Your task to perform on an android device: turn off javascript in the chrome app Image 0: 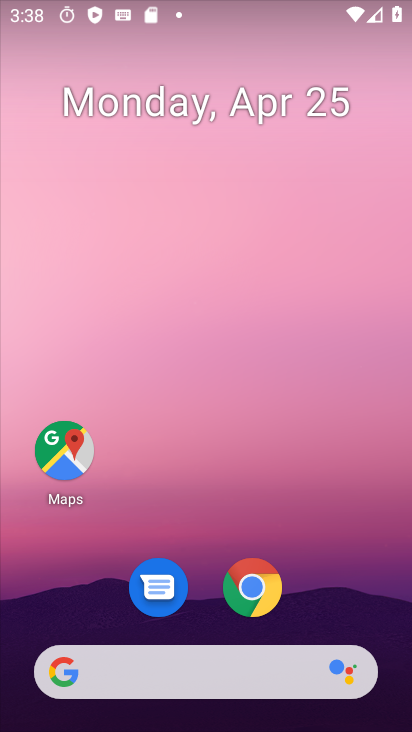
Step 0: drag from (334, 494) to (287, 40)
Your task to perform on an android device: turn off javascript in the chrome app Image 1: 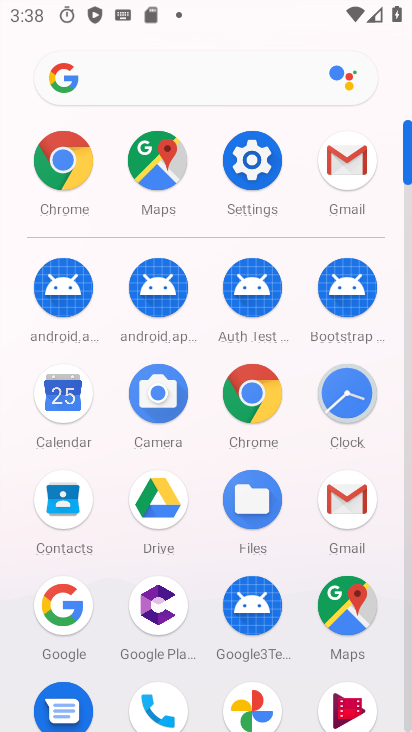
Step 1: click (262, 397)
Your task to perform on an android device: turn off javascript in the chrome app Image 2: 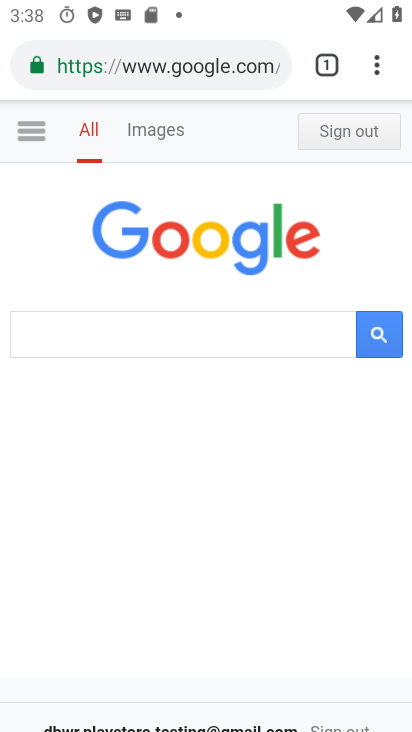
Step 2: drag from (378, 66) to (173, 641)
Your task to perform on an android device: turn off javascript in the chrome app Image 3: 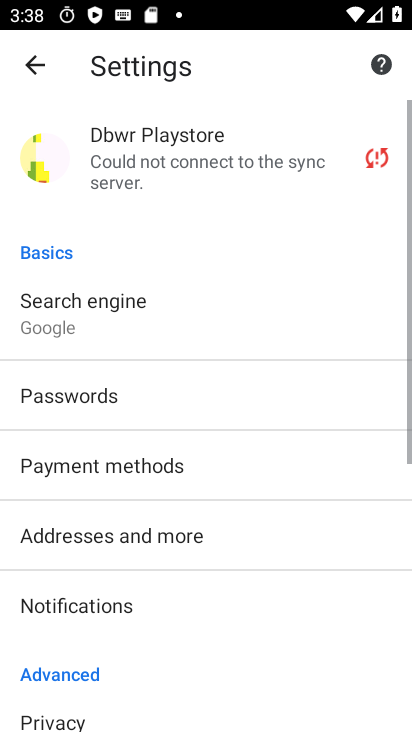
Step 3: drag from (198, 593) to (273, 49)
Your task to perform on an android device: turn off javascript in the chrome app Image 4: 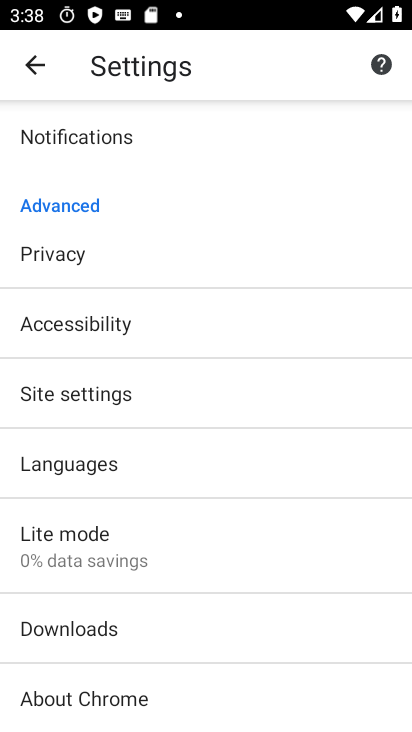
Step 4: drag from (244, 221) to (285, 118)
Your task to perform on an android device: turn off javascript in the chrome app Image 5: 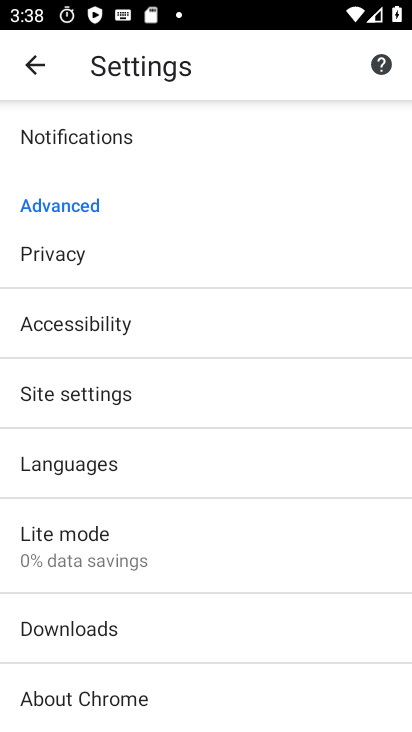
Step 5: click (126, 548)
Your task to perform on an android device: turn off javascript in the chrome app Image 6: 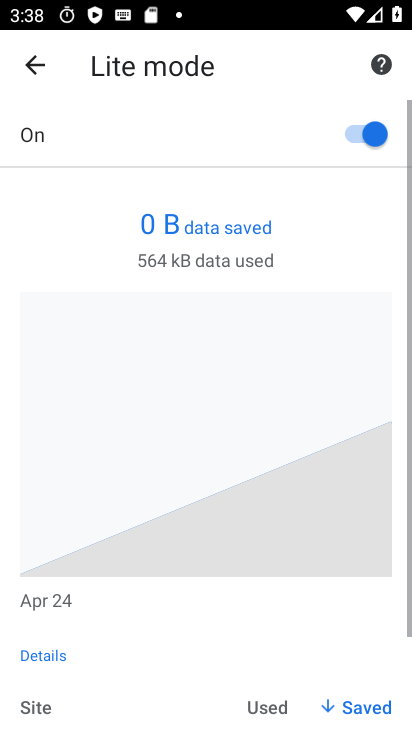
Step 6: click (36, 61)
Your task to perform on an android device: turn off javascript in the chrome app Image 7: 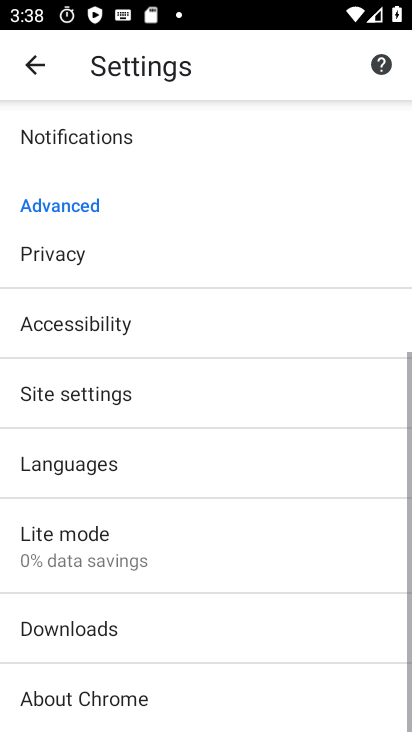
Step 7: click (154, 400)
Your task to perform on an android device: turn off javascript in the chrome app Image 8: 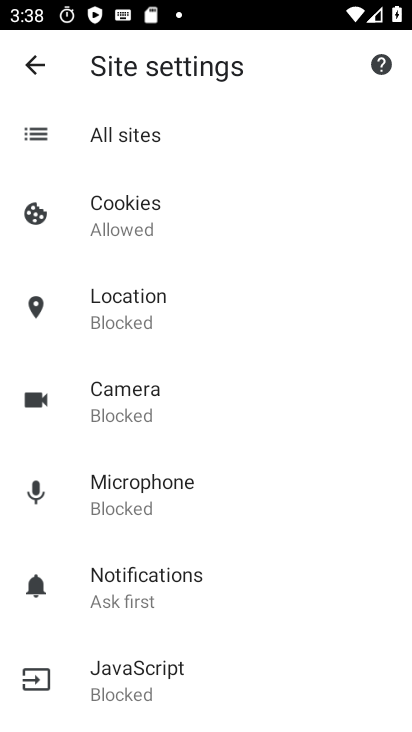
Step 8: drag from (161, 633) to (213, 253)
Your task to perform on an android device: turn off javascript in the chrome app Image 9: 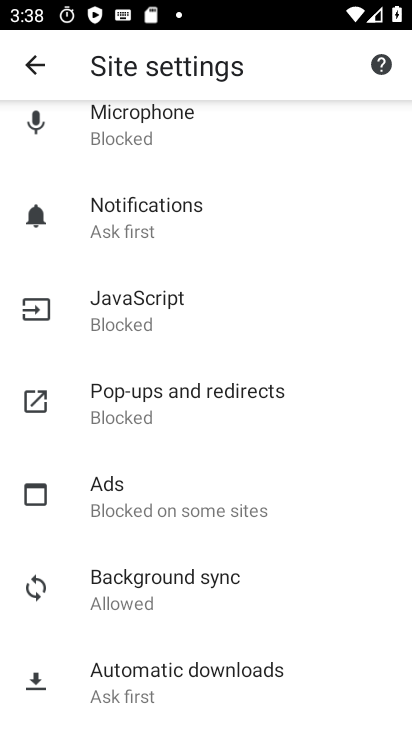
Step 9: click (156, 304)
Your task to perform on an android device: turn off javascript in the chrome app Image 10: 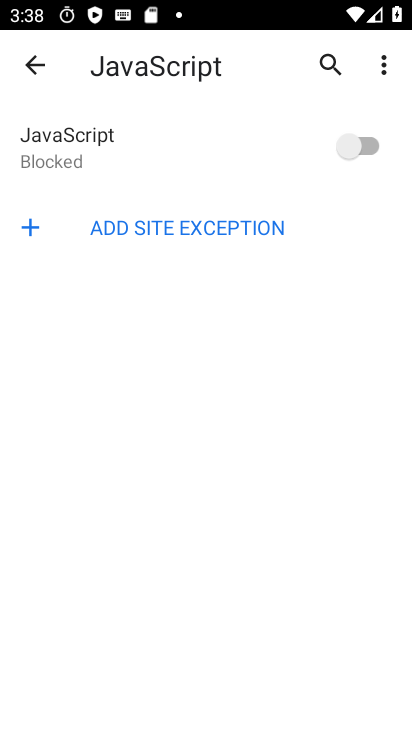
Step 10: task complete